Your task to perform on an android device: find snoozed emails in the gmail app Image 0: 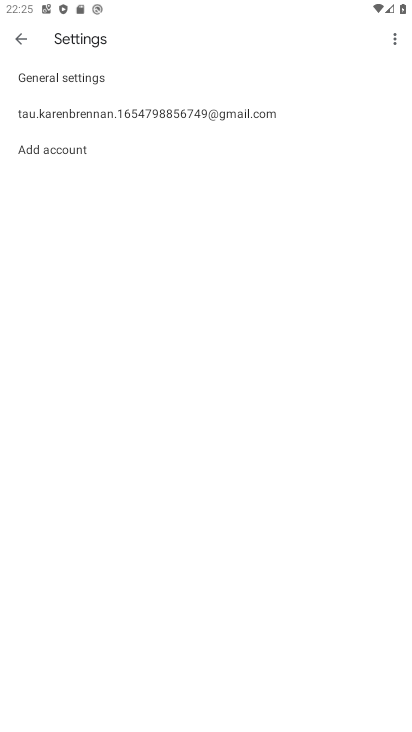
Step 0: press home button
Your task to perform on an android device: find snoozed emails in the gmail app Image 1: 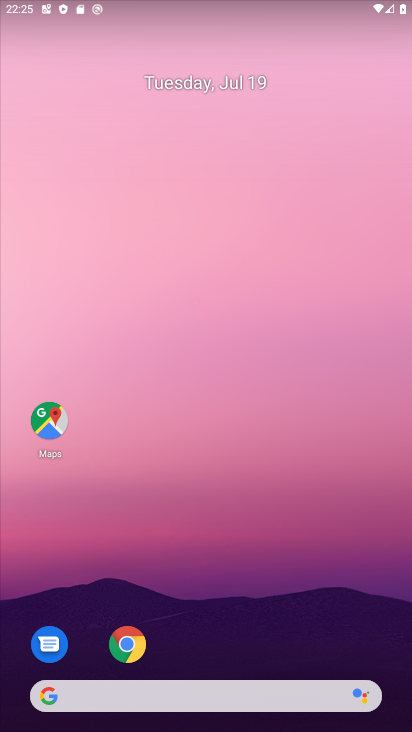
Step 1: drag from (223, 665) to (211, 202)
Your task to perform on an android device: find snoozed emails in the gmail app Image 2: 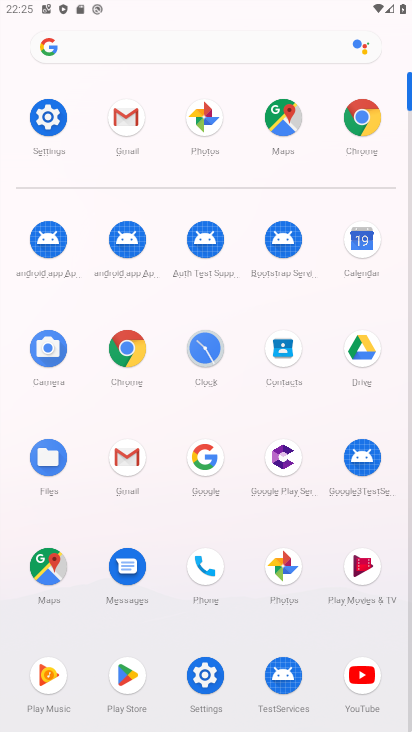
Step 2: click (129, 460)
Your task to perform on an android device: find snoozed emails in the gmail app Image 3: 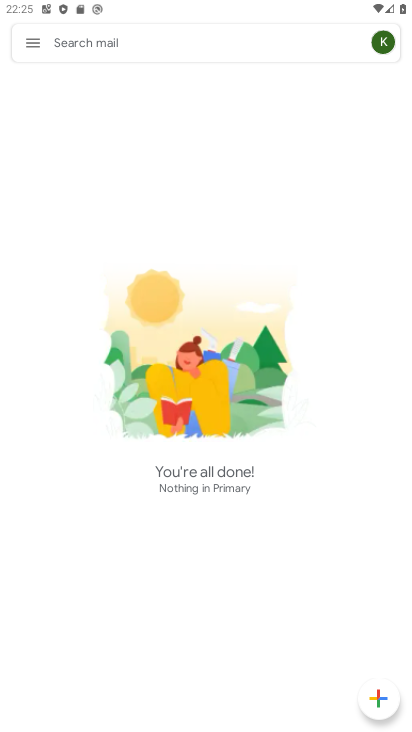
Step 3: click (29, 39)
Your task to perform on an android device: find snoozed emails in the gmail app Image 4: 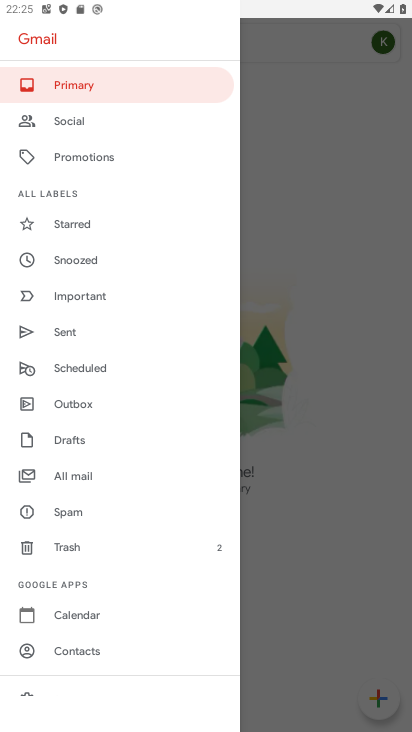
Step 4: click (71, 261)
Your task to perform on an android device: find snoozed emails in the gmail app Image 5: 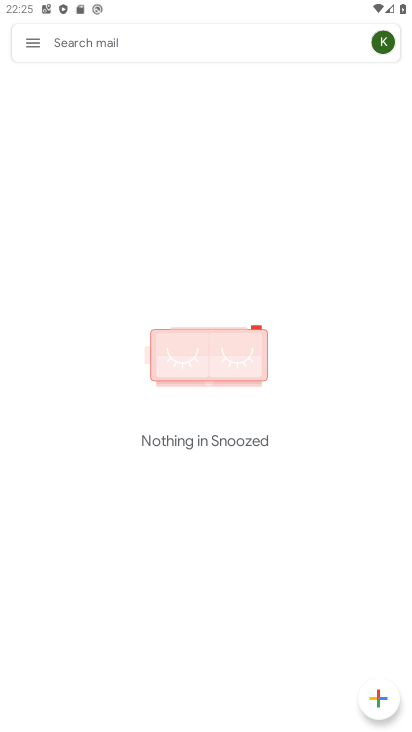
Step 5: task complete